Your task to perform on an android device: turn on improve location accuracy Image 0: 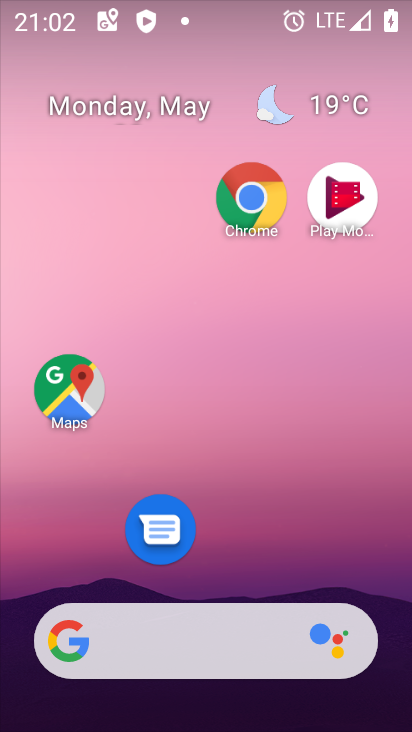
Step 0: drag from (272, 567) to (292, 78)
Your task to perform on an android device: turn on improve location accuracy Image 1: 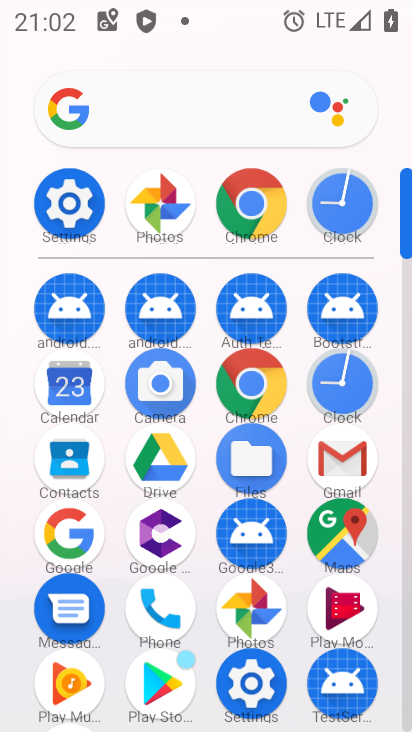
Step 1: click (66, 203)
Your task to perform on an android device: turn on improve location accuracy Image 2: 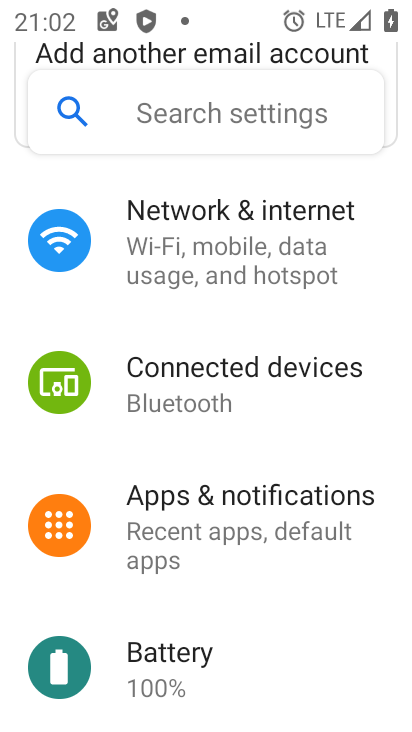
Step 2: drag from (240, 652) to (288, 233)
Your task to perform on an android device: turn on improve location accuracy Image 3: 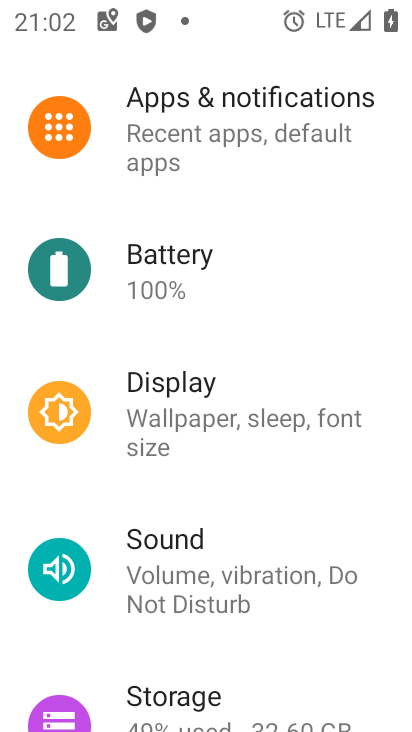
Step 3: drag from (237, 651) to (236, 250)
Your task to perform on an android device: turn on improve location accuracy Image 4: 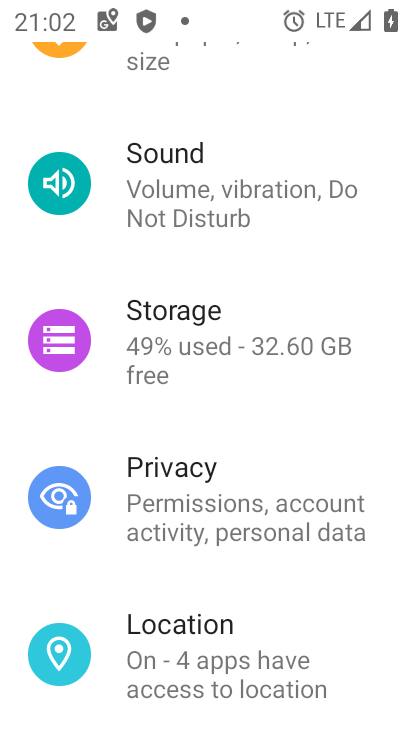
Step 4: click (191, 668)
Your task to perform on an android device: turn on improve location accuracy Image 5: 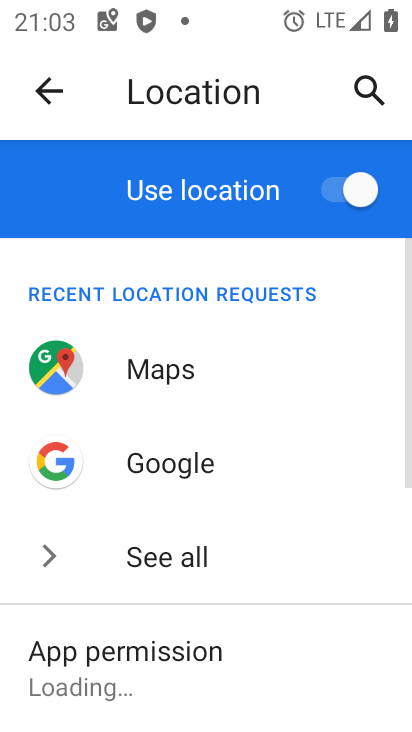
Step 5: drag from (191, 668) to (242, 390)
Your task to perform on an android device: turn on improve location accuracy Image 6: 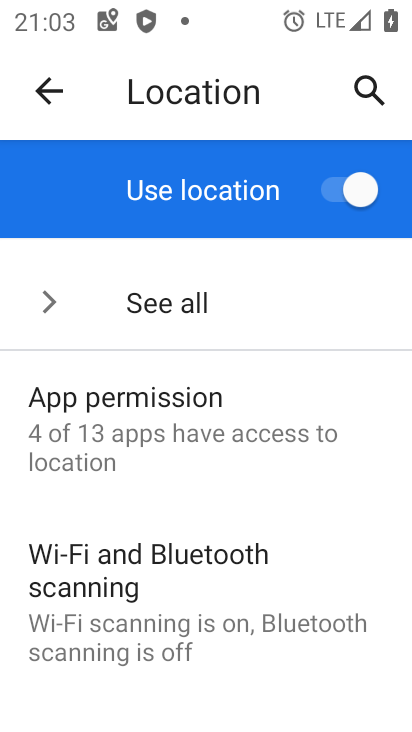
Step 6: drag from (222, 676) to (274, 263)
Your task to perform on an android device: turn on improve location accuracy Image 7: 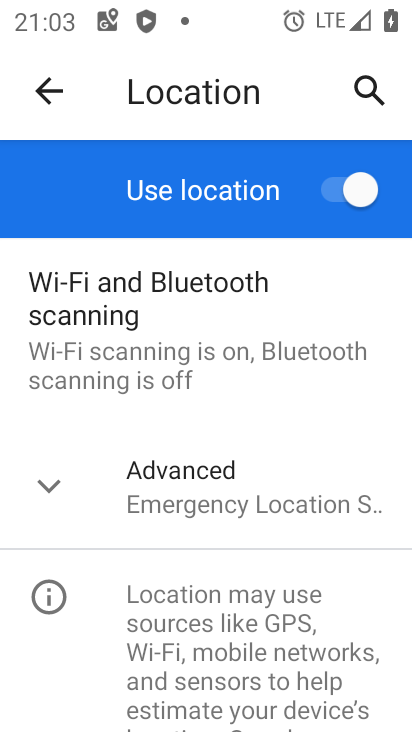
Step 7: click (153, 493)
Your task to perform on an android device: turn on improve location accuracy Image 8: 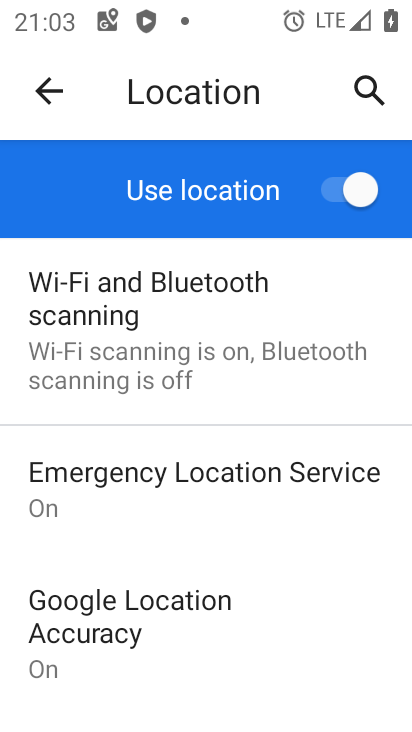
Step 8: task complete